Your task to perform on an android device: turn pop-ups off in chrome Image 0: 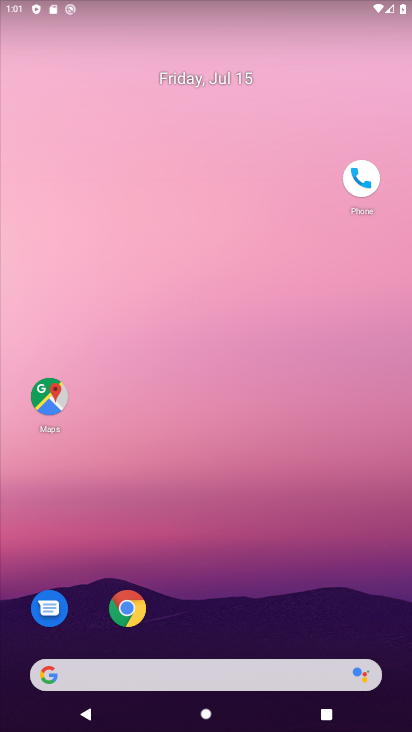
Step 0: drag from (192, 646) to (297, 207)
Your task to perform on an android device: turn pop-ups off in chrome Image 1: 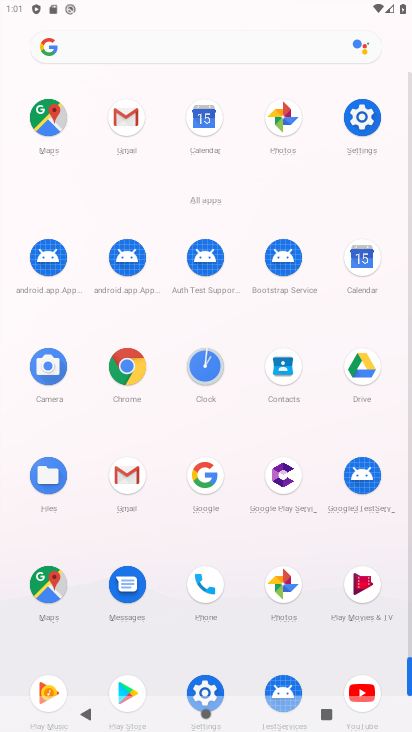
Step 1: click (125, 365)
Your task to perform on an android device: turn pop-ups off in chrome Image 2: 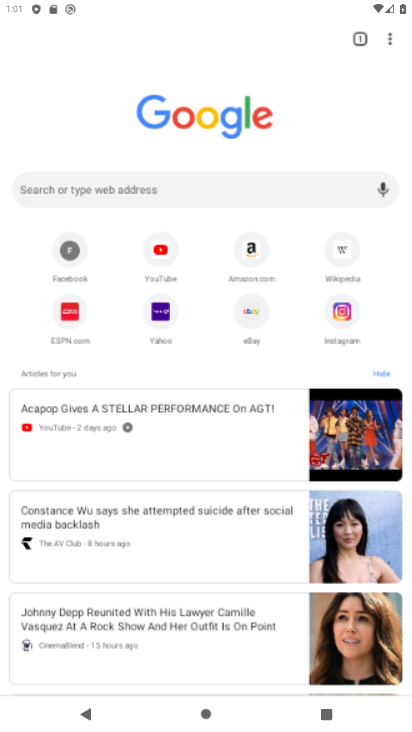
Step 2: click (386, 46)
Your task to perform on an android device: turn pop-ups off in chrome Image 3: 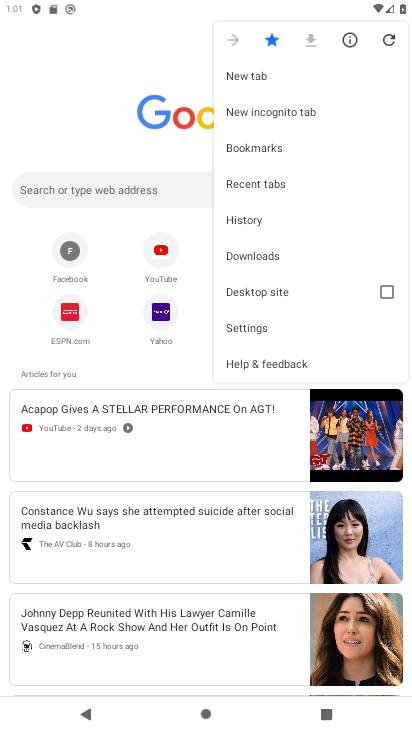
Step 3: click (264, 321)
Your task to perform on an android device: turn pop-ups off in chrome Image 4: 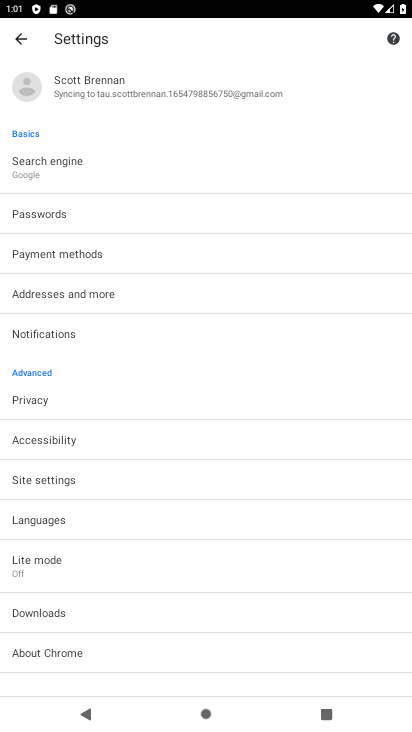
Step 4: drag from (116, 583) to (197, 256)
Your task to perform on an android device: turn pop-ups off in chrome Image 5: 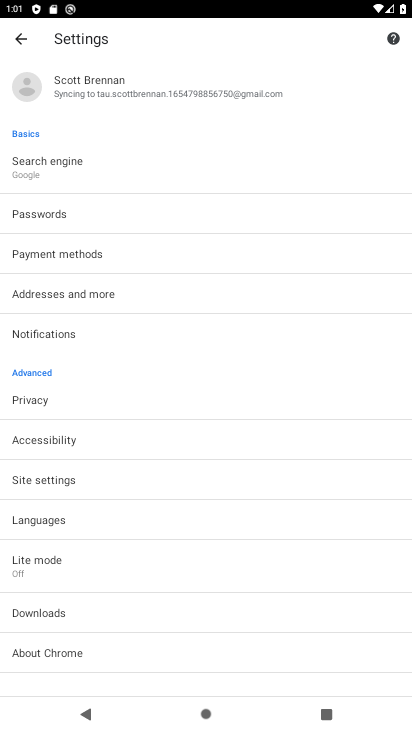
Step 5: click (75, 482)
Your task to perform on an android device: turn pop-ups off in chrome Image 6: 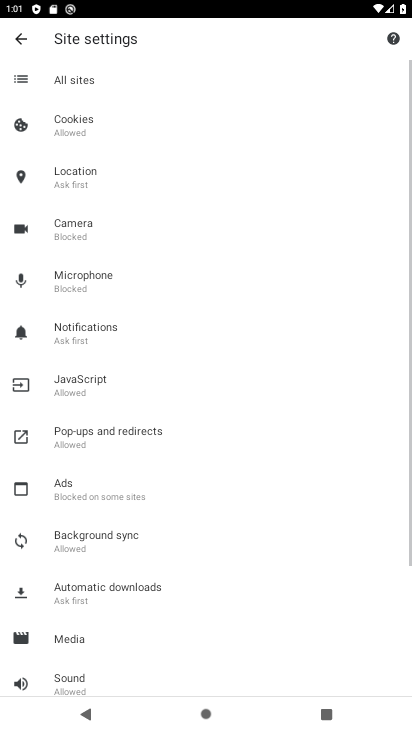
Step 6: drag from (149, 566) to (197, 295)
Your task to perform on an android device: turn pop-ups off in chrome Image 7: 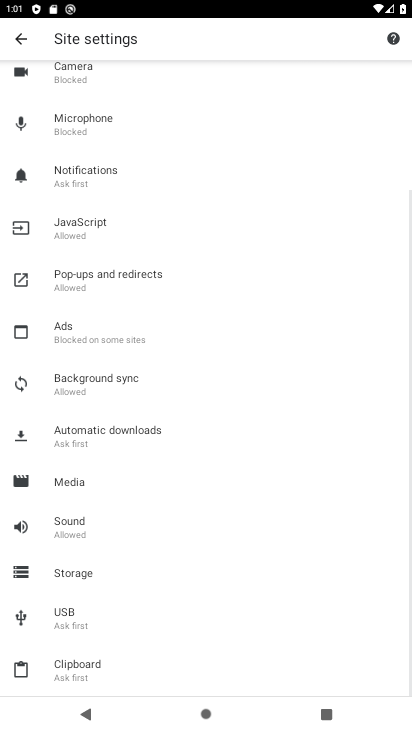
Step 7: drag from (175, 640) to (210, 379)
Your task to perform on an android device: turn pop-ups off in chrome Image 8: 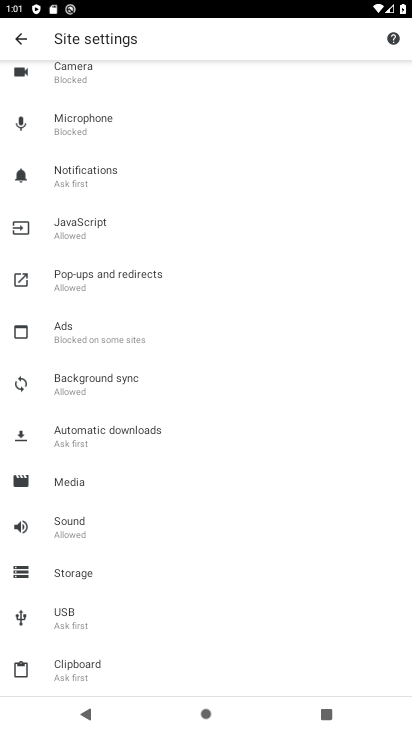
Step 8: click (142, 279)
Your task to perform on an android device: turn pop-ups off in chrome Image 9: 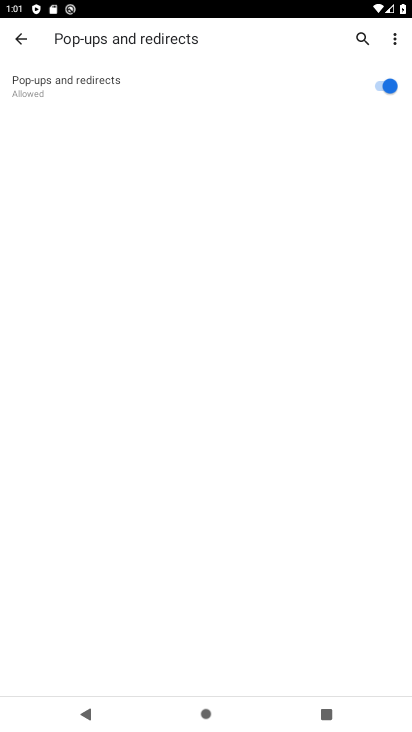
Step 9: click (383, 82)
Your task to perform on an android device: turn pop-ups off in chrome Image 10: 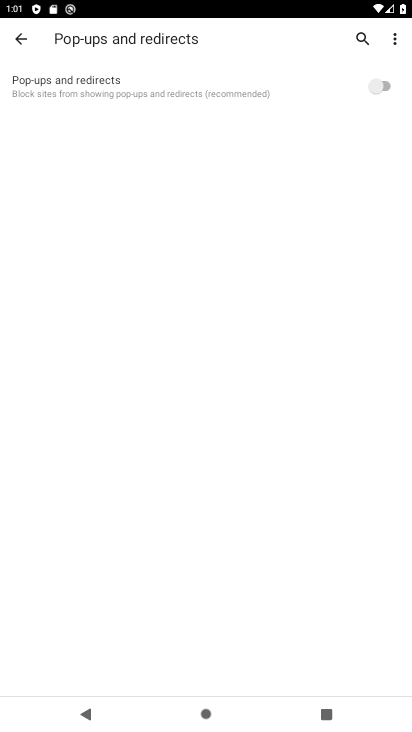
Step 10: task complete